Your task to perform on an android device: Go to settings Image 0: 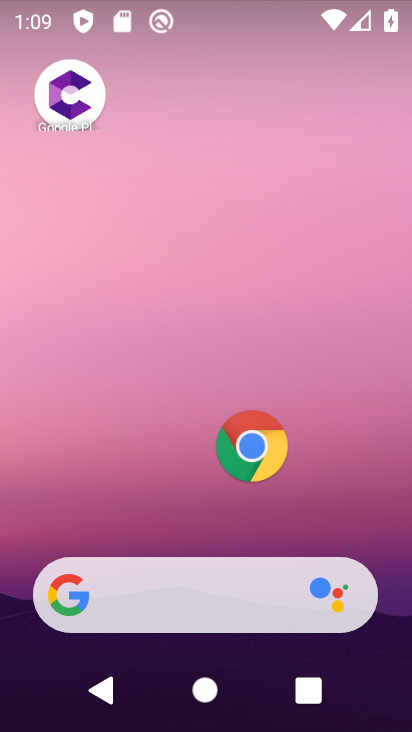
Step 0: drag from (193, 485) to (193, 34)
Your task to perform on an android device: Go to settings Image 1: 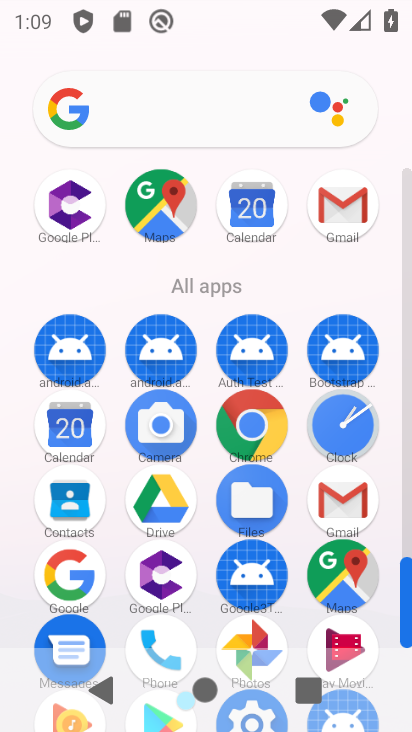
Step 1: drag from (202, 539) to (196, 152)
Your task to perform on an android device: Go to settings Image 2: 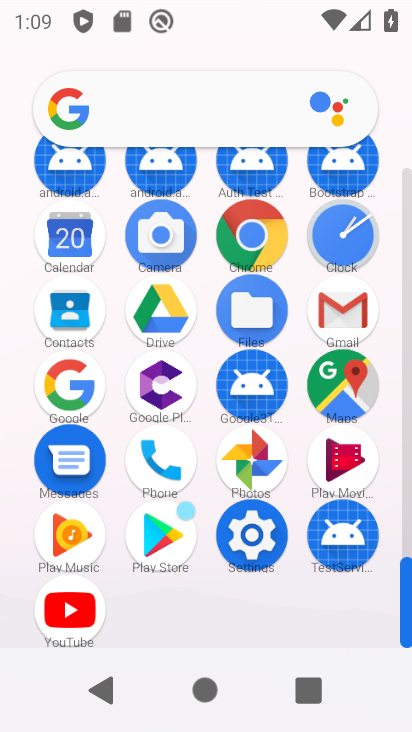
Step 2: click (249, 527)
Your task to perform on an android device: Go to settings Image 3: 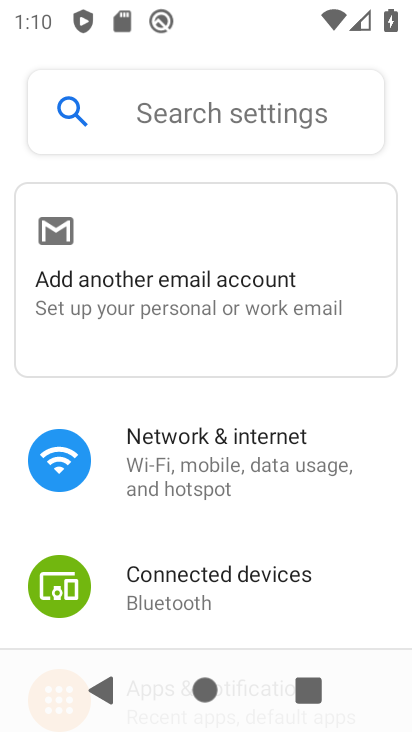
Step 3: task complete